Your task to perform on an android device: Open Google Chrome Image 0: 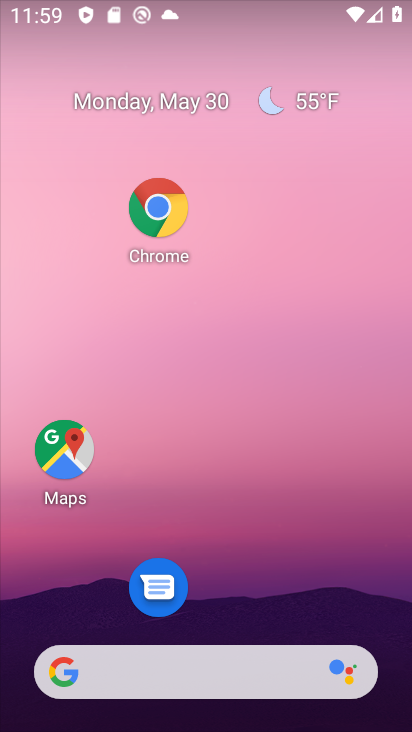
Step 0: click (173, 213)
Your task to perform on an android device: Open Google Chrome Image 1: 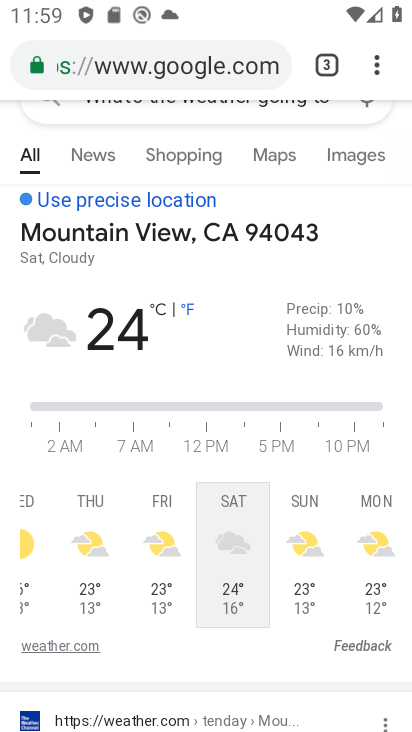
Step 1: task complete